Your task to perform on an android device: Play the last video I watched on Youtube Image 0: 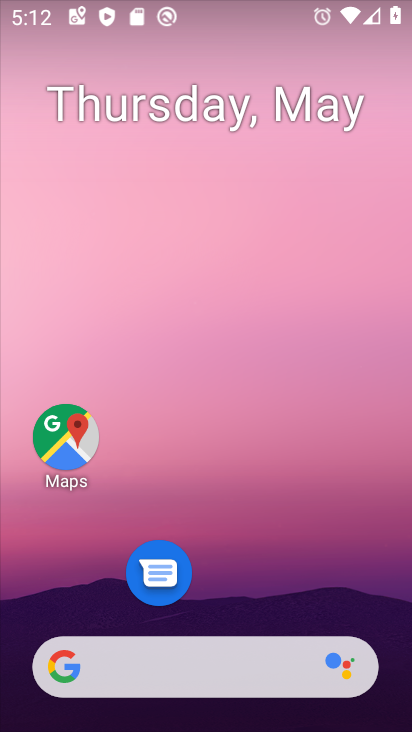
Step 0: drag from (240, 599) to (245, 142)
Your task to perform on an android device: Play the last video I watched on Youtube Image 1: 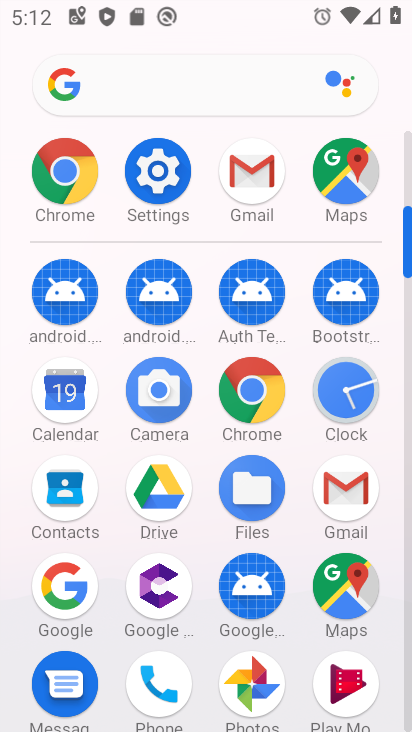
Step 1: drag from (289, 670) to (264, 253)
Your task to perform on an android device: Play the last video I watched on Youtube Image 2: 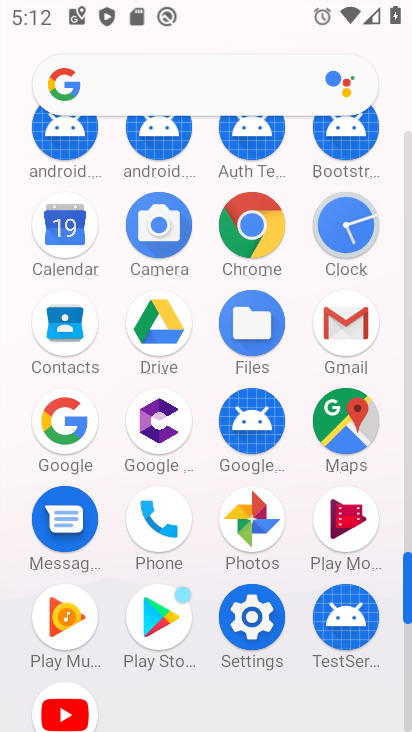
Step 2: click (57, 724)
Your task to perform on an android device: Play the last video I watched on Youtube Image 3: 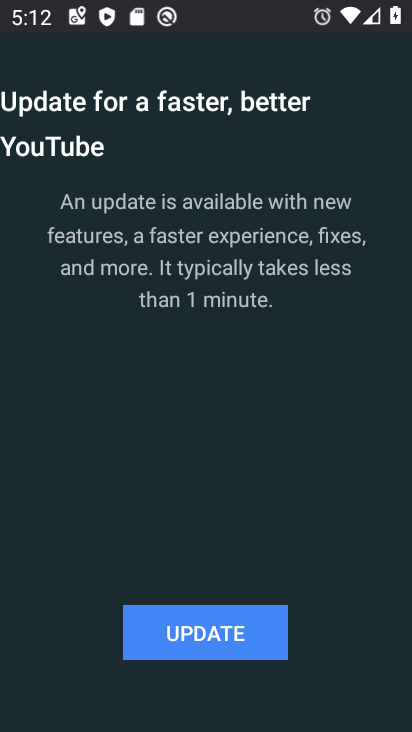
Step 3: drag from (256, 618) to (219, 618)
Your task to perform on an android device: Play the last video I watched on Youtube Image 4: 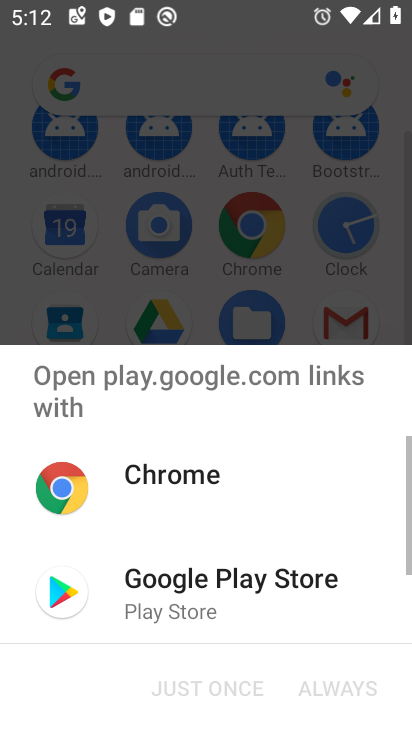
Step 4: click (211, 611)
Your task to perform on an android device: Play the last video I watched on Youtube Image 5: 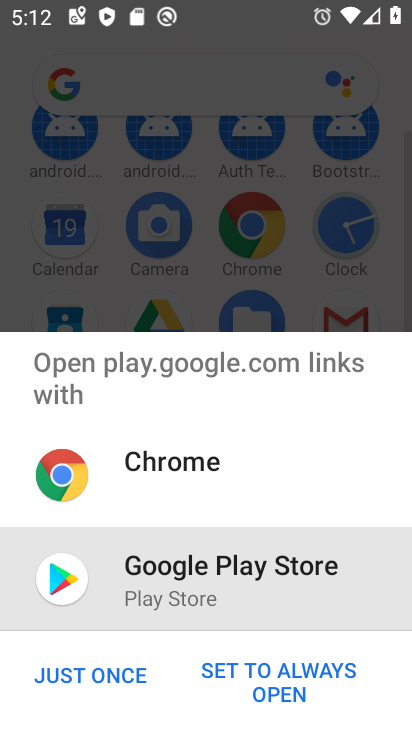
Step 5: click (299, 689)
Your task to perform on an android device: Play the last video I watched on Youtube Image 6: 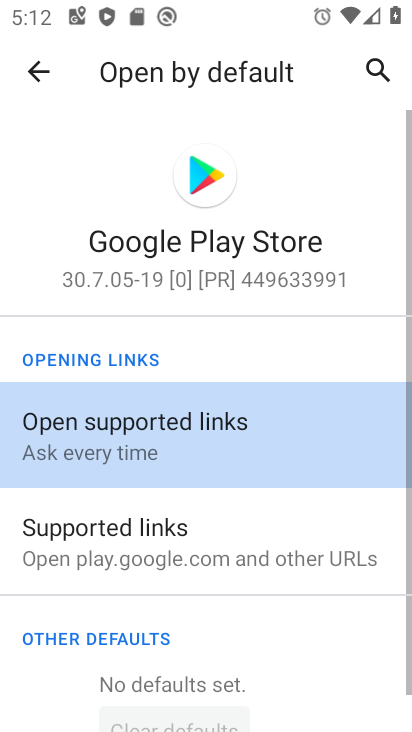
Step 6: click (105, 455)
Your task to perform on an android device: Play the last video I watched on Youtube Image 7: 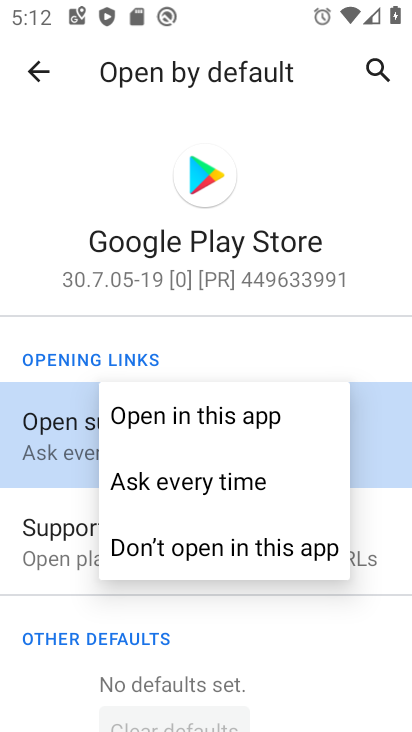
Step 7: click (206, 416)
Your task to perform on an android device: Play the last video I watched on Youtube Image 8: 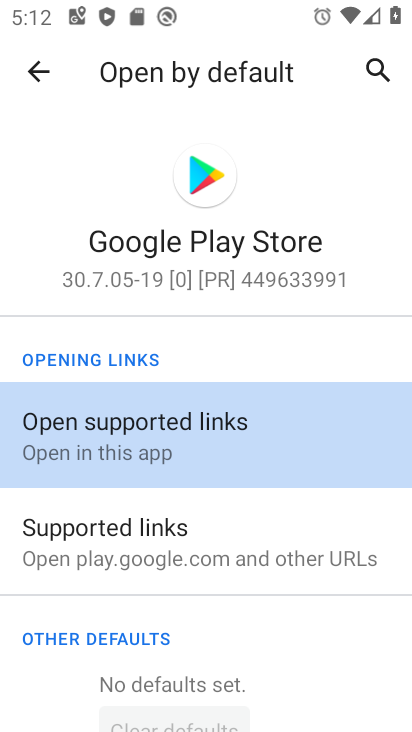
Step 8: click (29, 71)
Your task to perform on an android device: Play the last video I watched on Youtube Image 9: 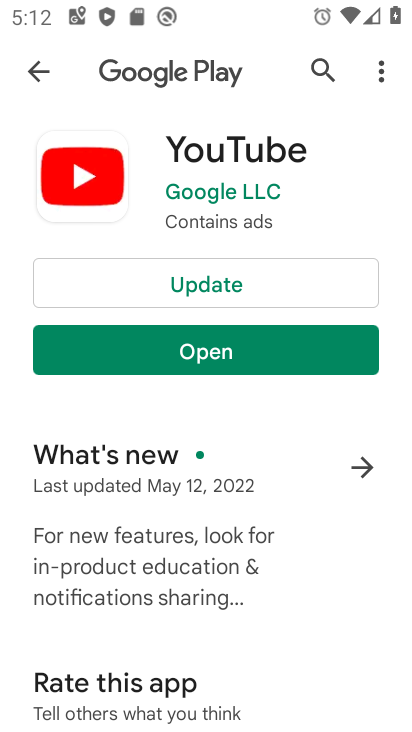
Step 9: click (228, 358)
Your task to perform on an android device: Play the last video I watched on Youtube Image 10: 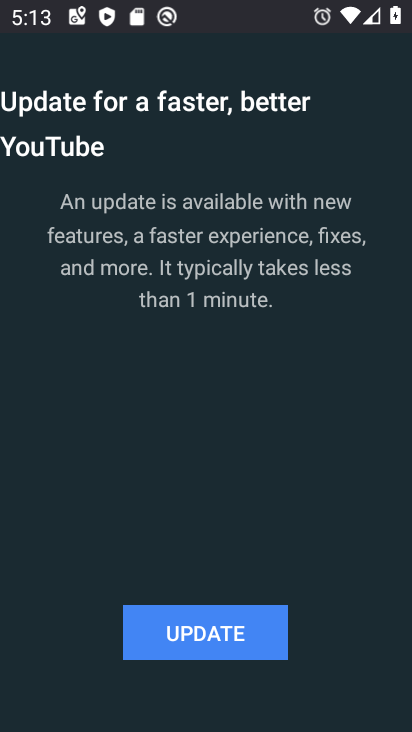
Step 10: press back button
Your task to perform on an android device: Play the last video I watched on Youtube Image 11: 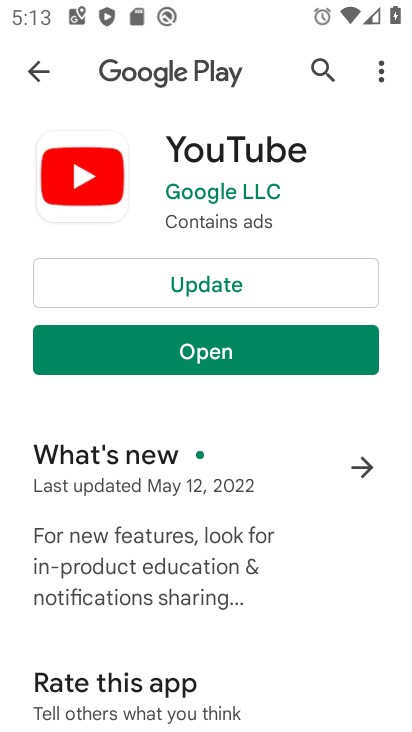
Step 11: click (190, 277)
Your task to perform on an android device: Play the last video I watched on Youtube Image 12: 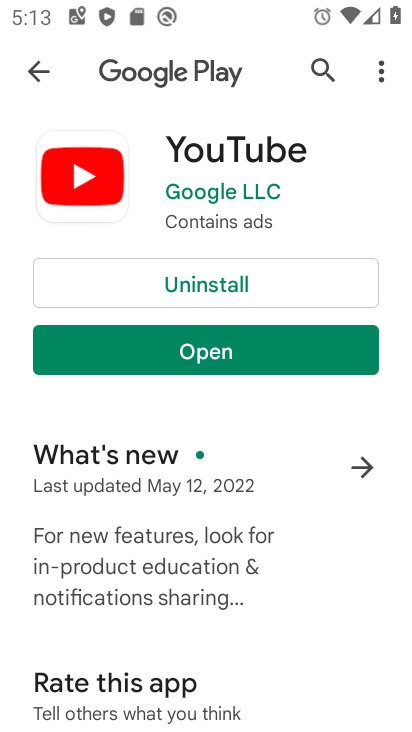
Step 12: click (219, 355)
Your task to perform on an android device: Play the last video I watched on Youtube Image 13: 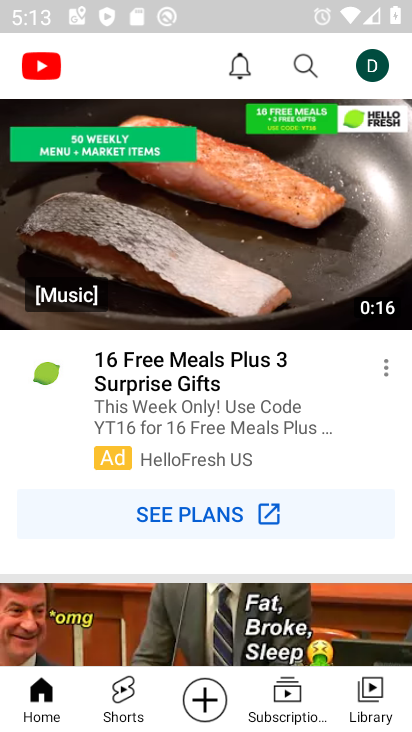
Step 13: click (369, 696)
Your task to perform on an android device: Play the last video I watched on Youtube Image 14: 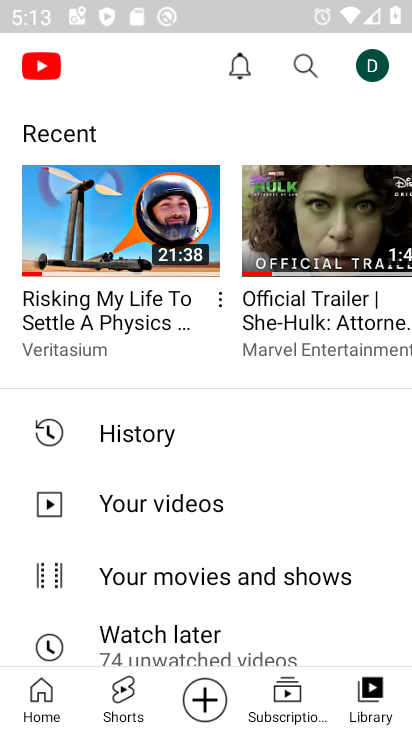
Step 14: task complete